Your task to perform on an android device: find photos in the google photos app Image 0: 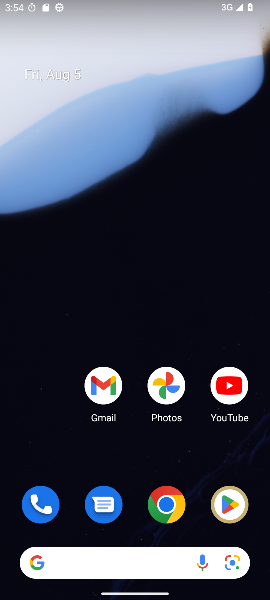
Step 0: click (175, 383)
Your task to perform on an android device: find photos in the google photos app Image 1: 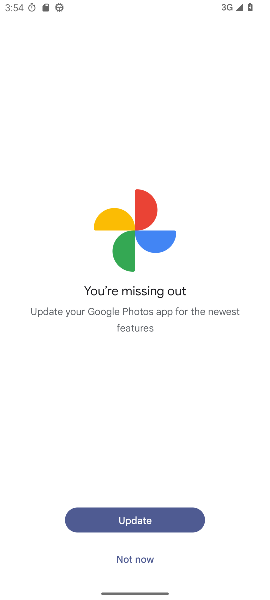
Step 1: click (114, 558)
Your task to perform on an android device: find photos in the google photos app Image 2: 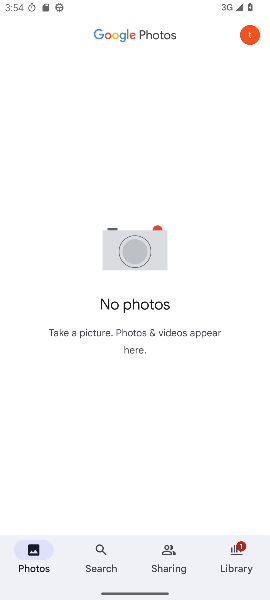
Step 2: task complete